Your task to perform on an android device: See recent photos Image 0: 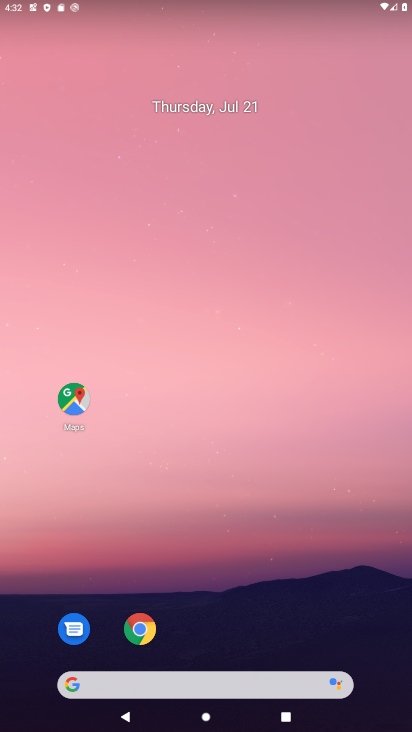
Step 0: drag from (275, 420) to (148, 9)
Your task to perform on an android device: See recent photos Image 1: 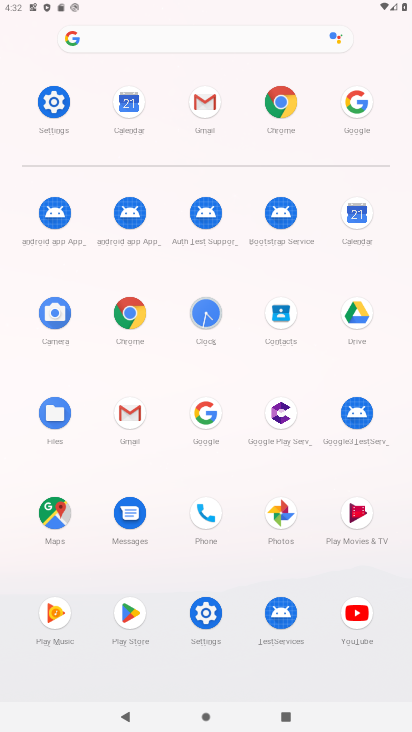
Step 1: click (273, 508)
Your task to perform on an android device: See recent photos Image 2: 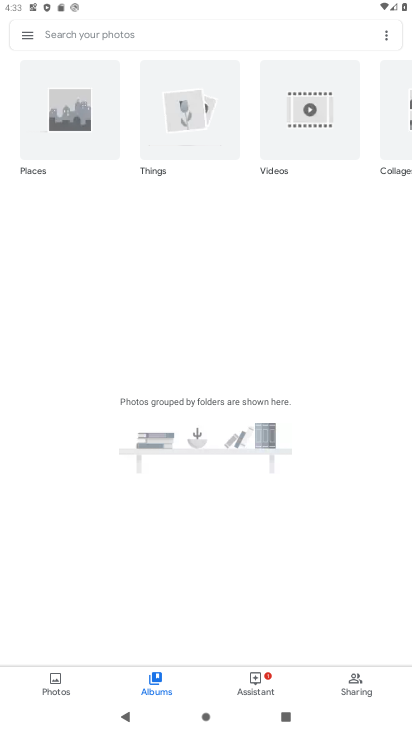
Step 2: click (59, 684)
Your task to perform on an android device: See recent photos Image 3: 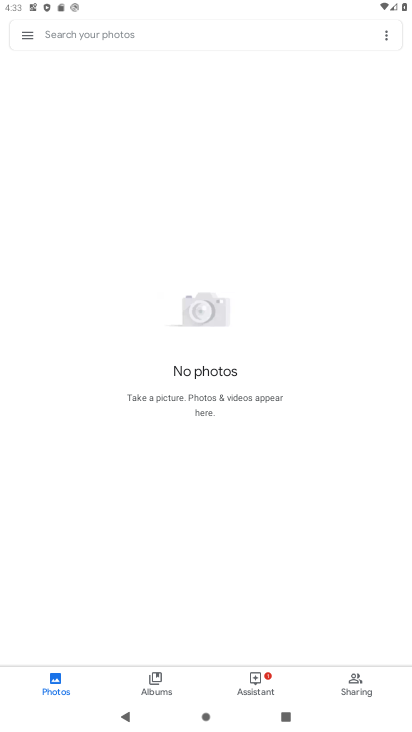
Step 3: task complete